Your task to perform on an android device: Go to notification settings Image 0: 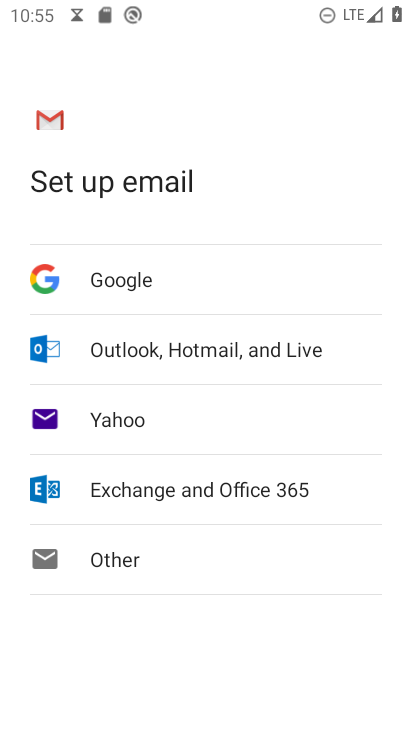
Step 0: press home button
Your task to perform on an android device: Go to notification settings Image 1: 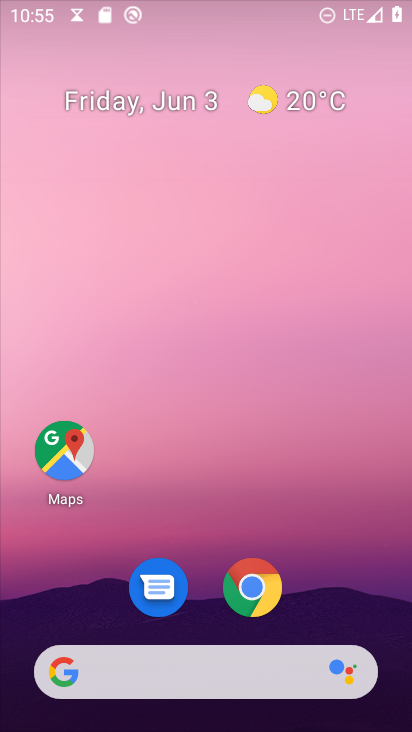
Step 1: drag from (328, 603) to (235, 29)
Your task to perform on an android device: Go to notification settings Image 2: 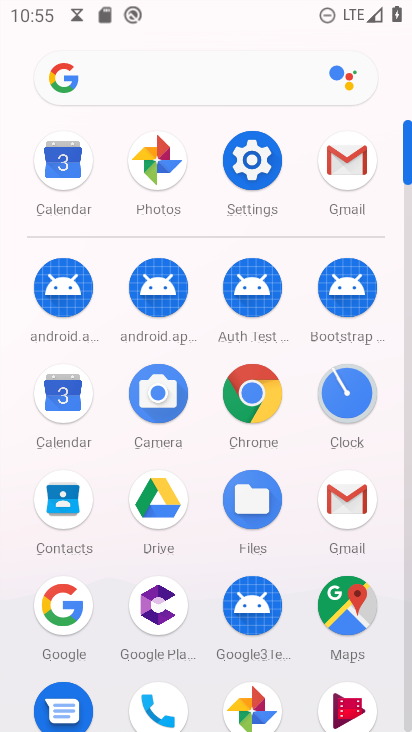
Step 2: click (232, 163)
Your task to perform on an android device: Go to notification settings Image 3: 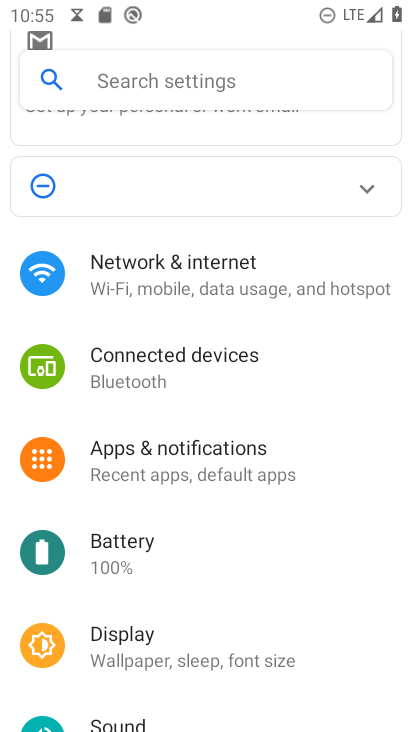
Step 3: click (210, 460)
Your task to perform on an android device: Go to notification settings Image 4: 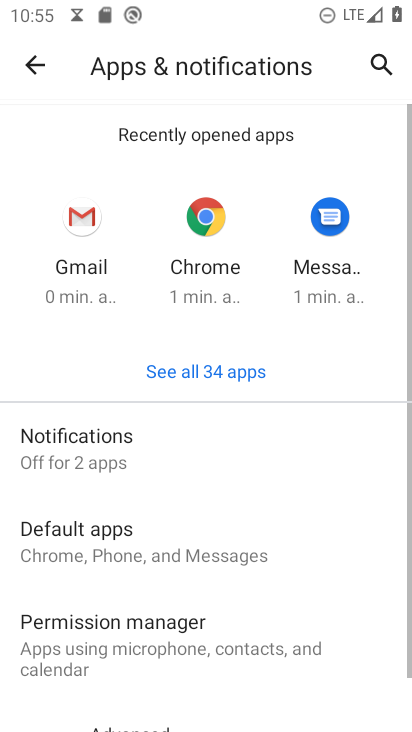
Step 4: task complete